Your task to perform on an android device: open chrome and create a bookmark for the current page Image 0: 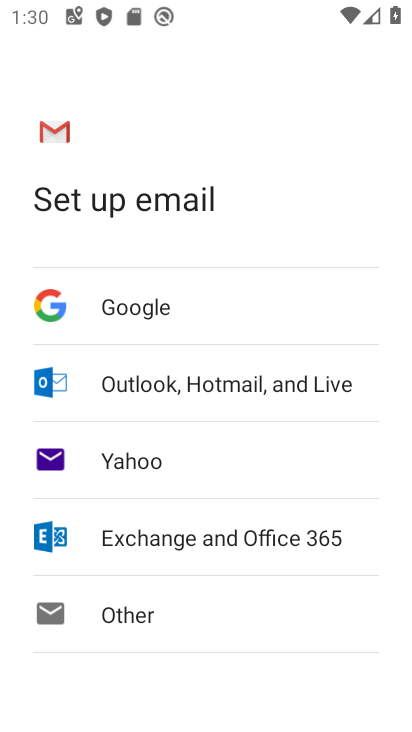
Step 0: press home button
Your task to perform on an android device: open chrome and create a bookmark for the current page Image 1: 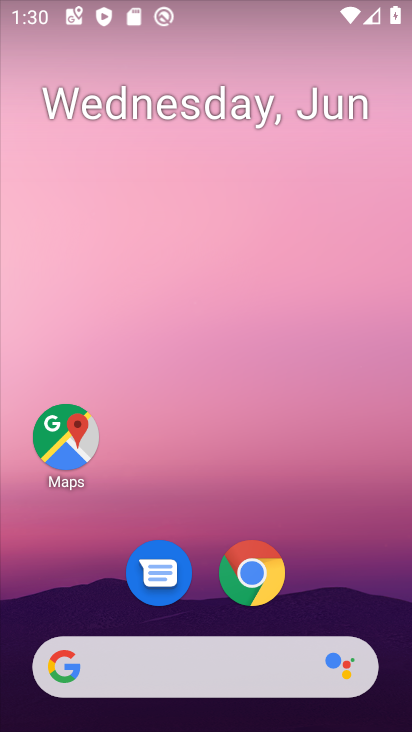
Step 1: drag from (360, 602) to (349, 138)
Your task to perform on an android device: open chrome and create a bookmark for the current page Image 2: 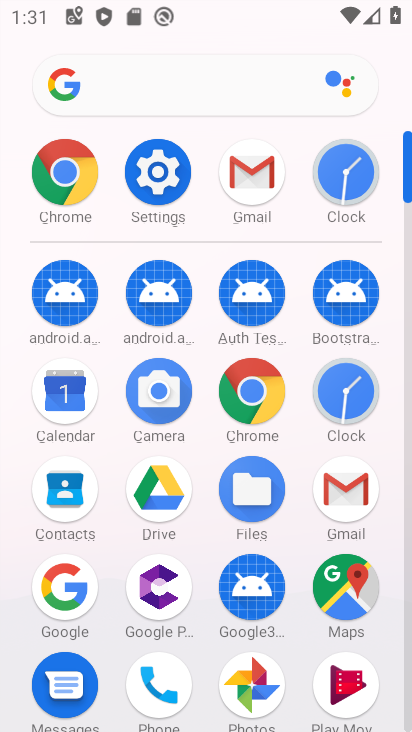
Step 2: click (263, 398)
Your task to perform on an android device: open chrome and create a bookmark for the current page Image 3: 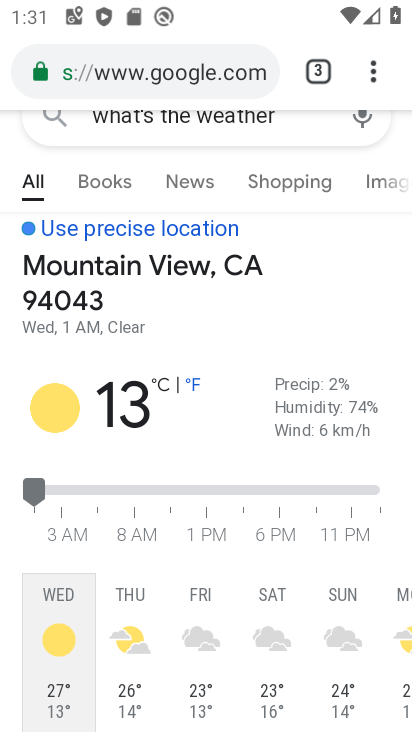
Step 3: drag from (383, 71) to (227, 274)
Your task to perform on an android device: open chrome and create a bookmark for the current page Image 4: 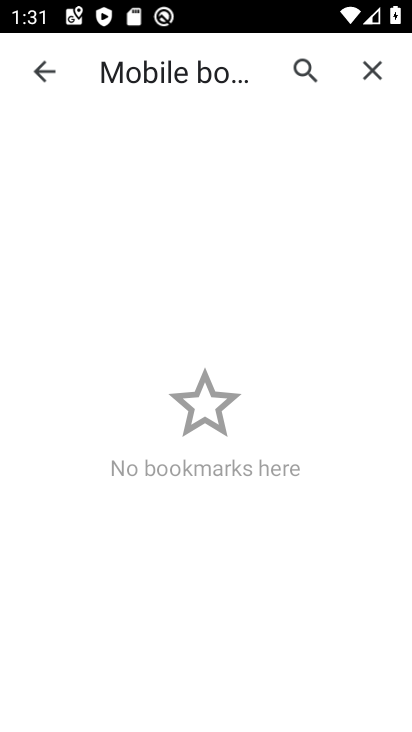
Step 4: click (64, 54)
Your task to perform on an android device: open chrome and create a bookmark for the current page Image 5: 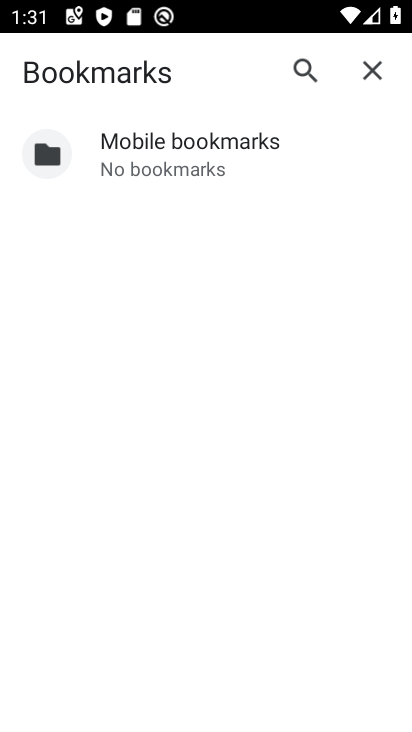
Step 5: click (393, 74)
Your task to perform on an android device: open chrome and create a bookmark for the current page Image 6: 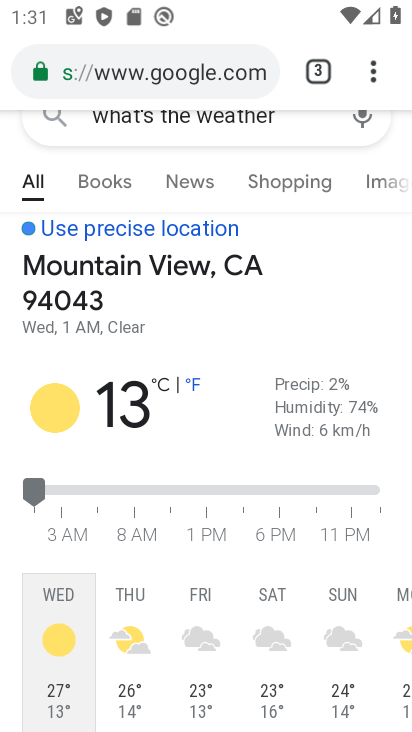
Step 6: task complete